Your task to perform on an android device: Search for Italian restaurants on Maps Image 0: 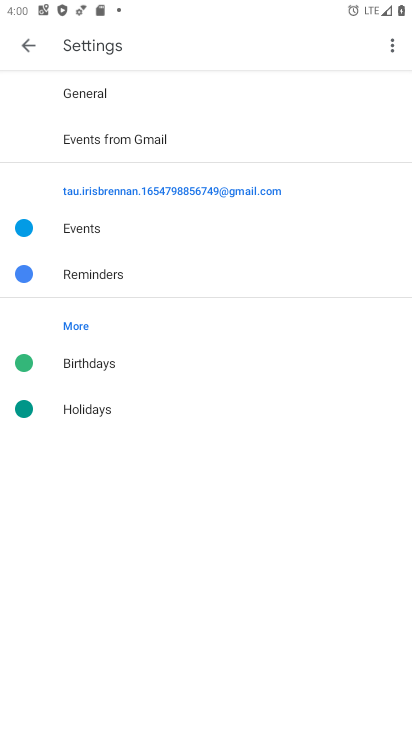
Step 0: press home button
Your task to perform on an android device: Search for Italian restaurants on Maps Image 1: 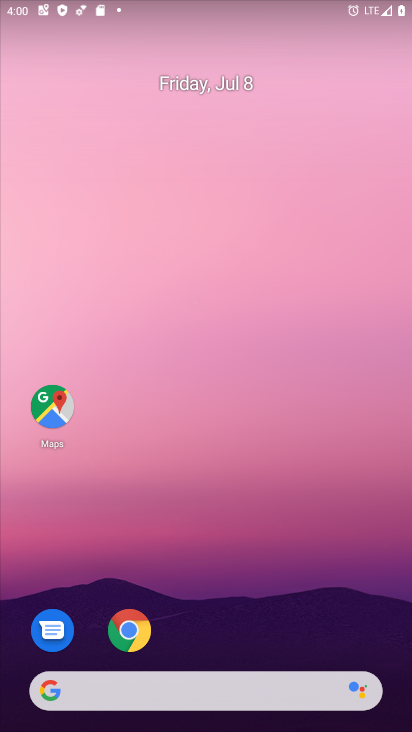
Step 1: click (53, 405)
Your task to perform on an android device: Search for Italian restaurants on Maps Image 2: 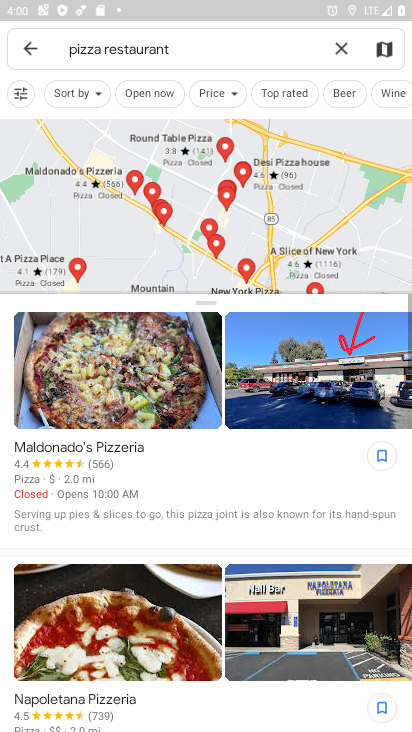
Step 2: click (337, 51)
Your task to perform on an android device: Search for Italian restaurants on Maps Image 3: 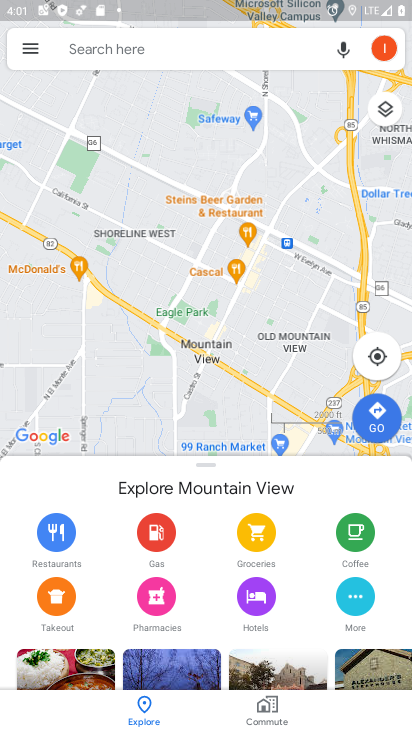
Step 3: click (272, 55)
Your task to perform on an android device: Search for Italian restaurants on Maps Image 4: 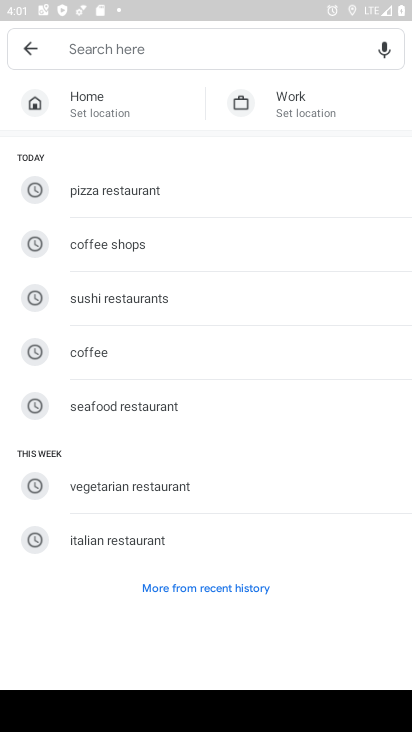
Step 4: type "Italian restaurants"
Your task to perform on an android device: Search for Italian restaurants on Maps Image 5: 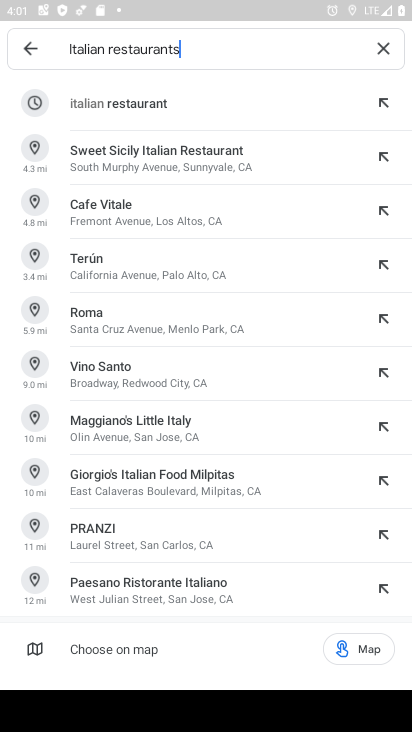
Step 5: click (148, 103)
Your task to perform on an android device: Search for Italian restaurants on Maps Image 6: 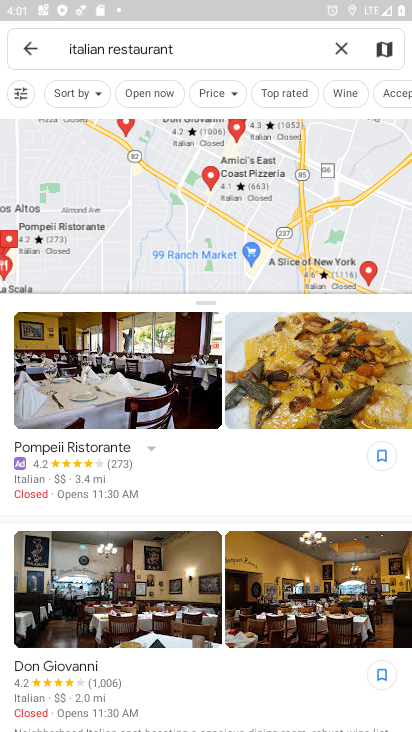
Step 6: task complete